Your task to perform on an android device: change the clock display to digital Image 0: 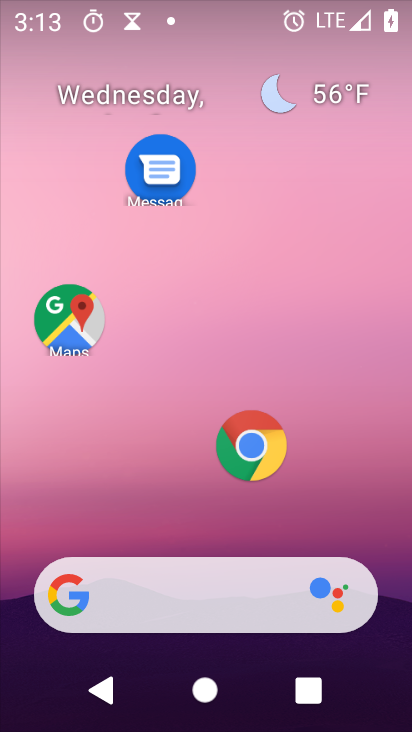
Step 0: drag from (1, 686) to (223, 125)
Your task to perform on an android device: change the clock display to digital Image 1: 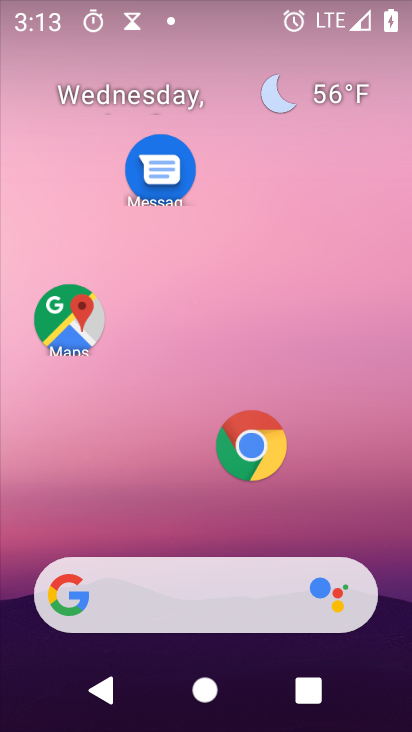
Step 1: drag from (22, 535) to (292, 65)
Your task to perform on an android device: change the clock display to digital Image 2: 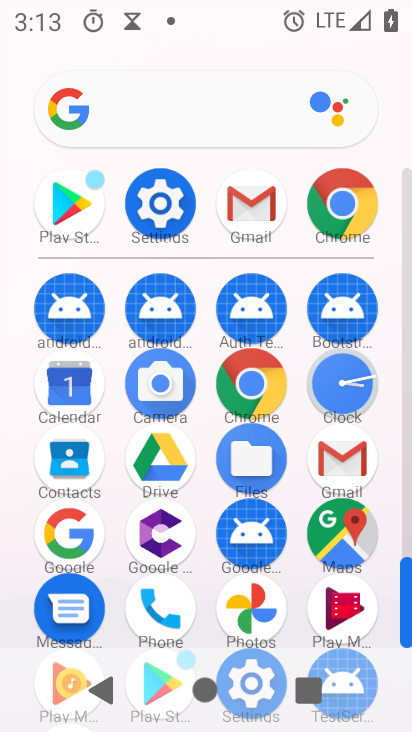
Step 2: click (334, 367)
Your task to perform on an android device: change the clock display to digital Image 3: 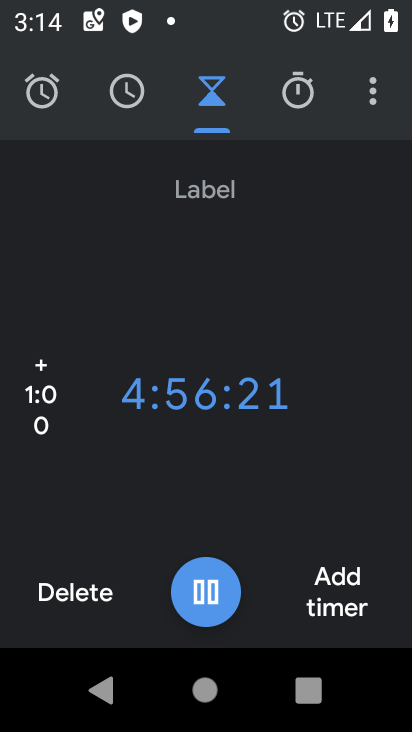
Step 3: click (372, 98)
Your task to perform on an android device: change the clock display to digital Image 4: 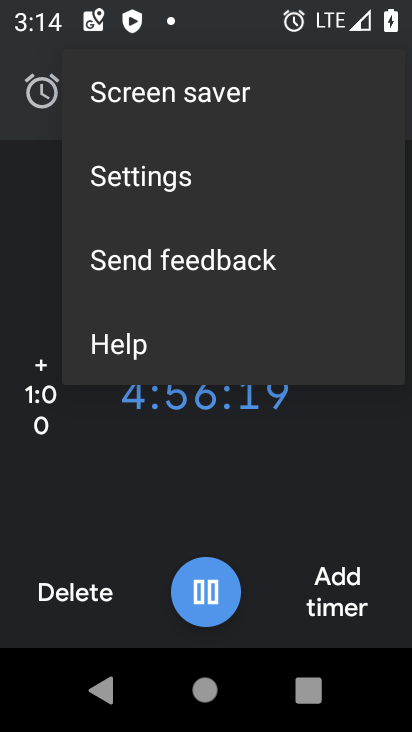
Step 4: click (162, 184)
Your task to perform on an android device: change the clock display to digital Image 5: 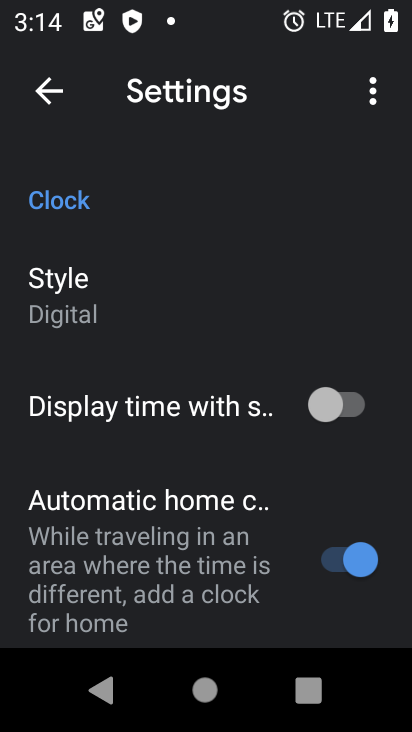
Step 5: task complete